Your task to perform on an android device: toggle javascript in the chrome app Image 0: 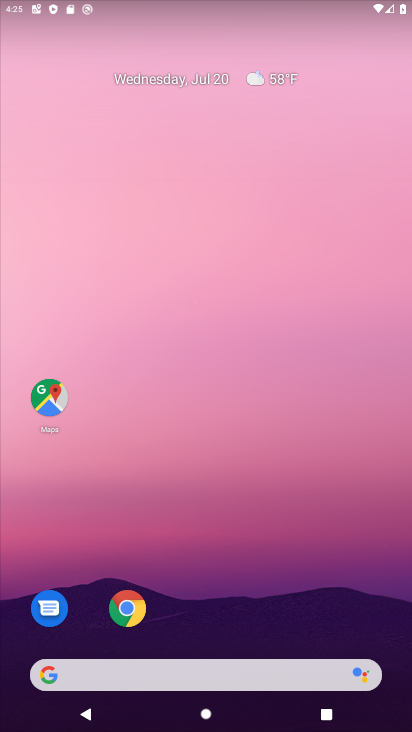
Step 0: drag from (211, 648) to (84, 22)
Your task to perform on an android device: toggle javascript in the chrome app Image 1: 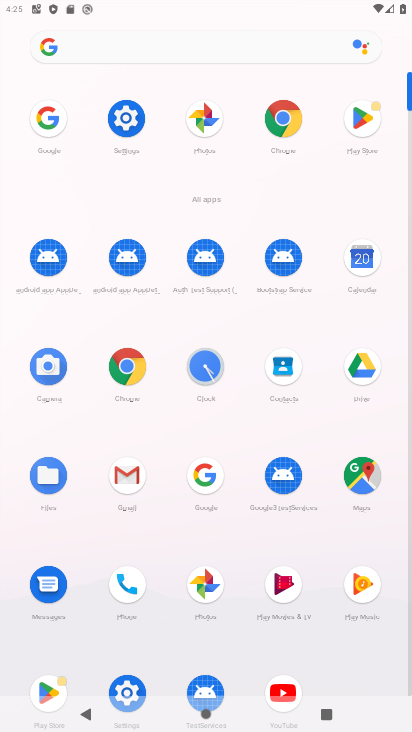
Step 1: click (112, 353)
Your task to perform on an android device: toggle javascript in the chrome app Image 2: 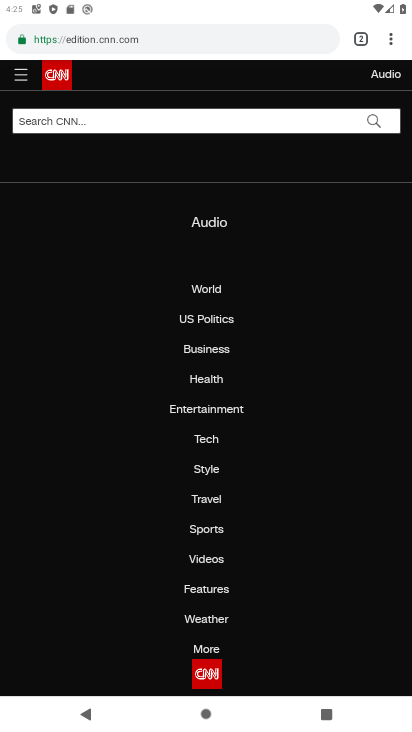
Step 2: click (389, 47)
Your task to perform on an android device: toggle javascript in the chrome app Image 3: 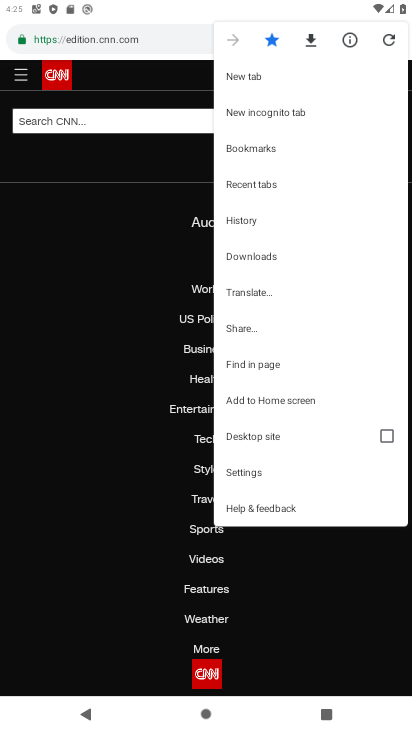
Step 3: click (244, 466)
Your task to perform on an android device: toggle javascript in the chrome app Image 4: 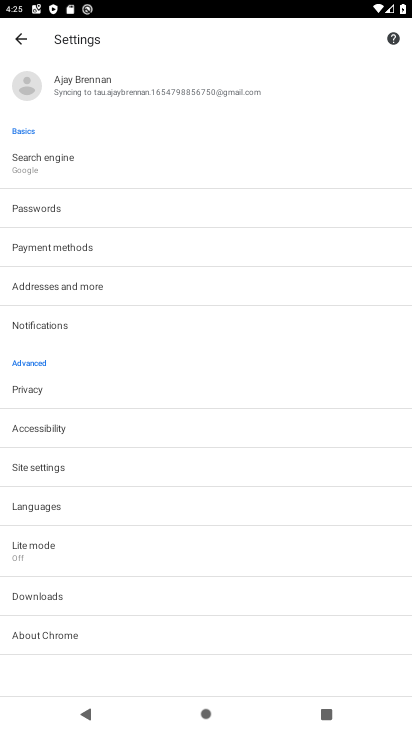
Step 4: click (63, 472)
Your task to perform on an android device: toggle javascript in the chrome app Image 5: 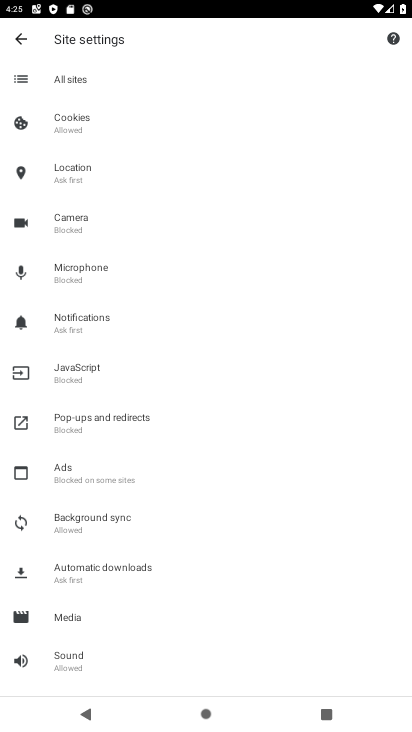
Step 5: click (57, 374)
Your task to perform on an android device: toggle javascript in the chrome app Image 6: 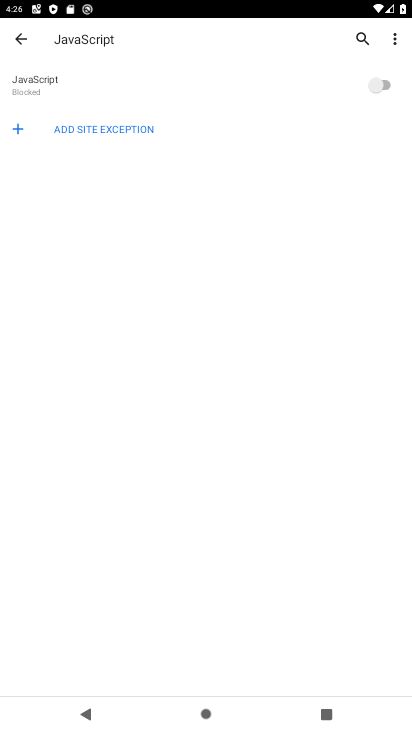
Step 6: click (389, 93)
Your task to perform on an android device: toggle javascript in the chrome app Image 7: 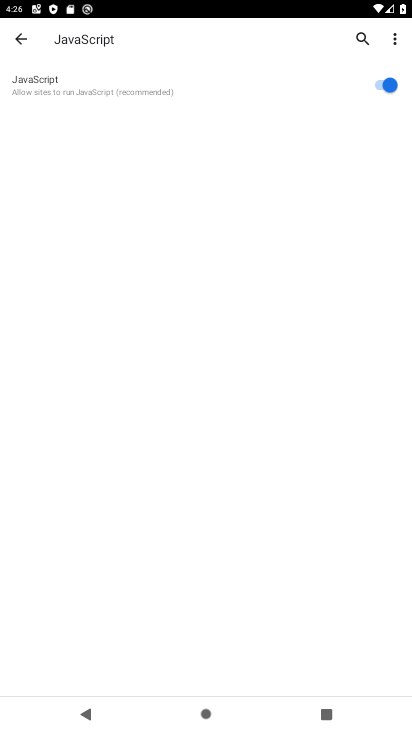
Step 7: task complete